Your task to perform on an android device: change the clock display to show seconds Image 0: 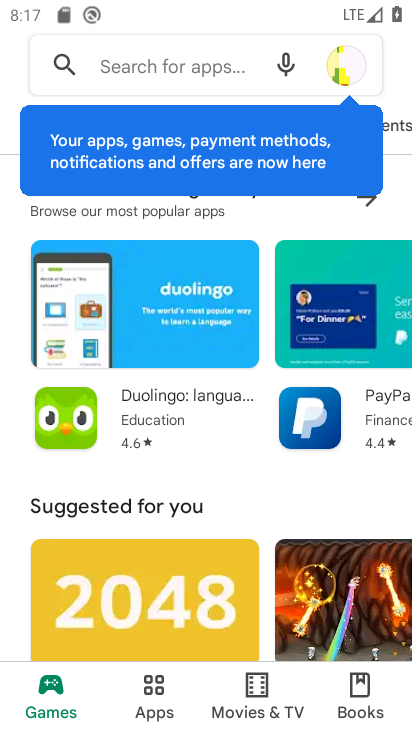
Step 0: press home button
Your task to perform on an android device: change the clock display to show seconds Image 1: 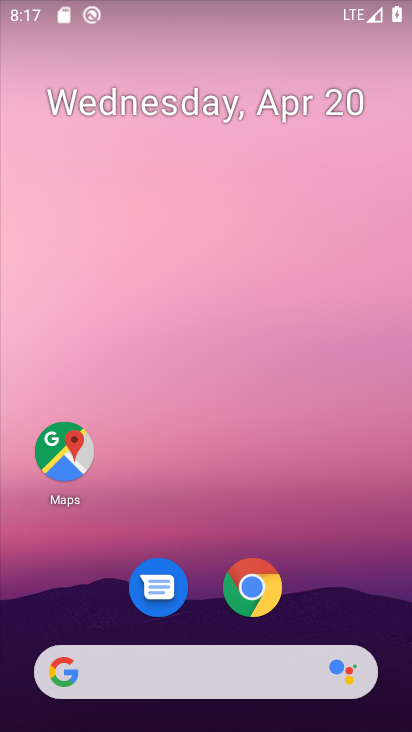
Step 1: drag from (370, 536) to (405, 237)
Your task to perform on an android device: change the clock display to show seconds Image 2: 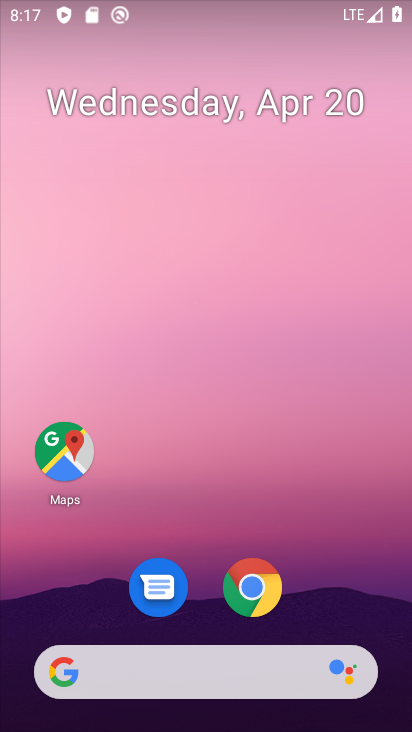
Step 2: drag from (343, 538) to (367, 174)
Your task to perform on an android device: change the clock display to show seconds Image 3: 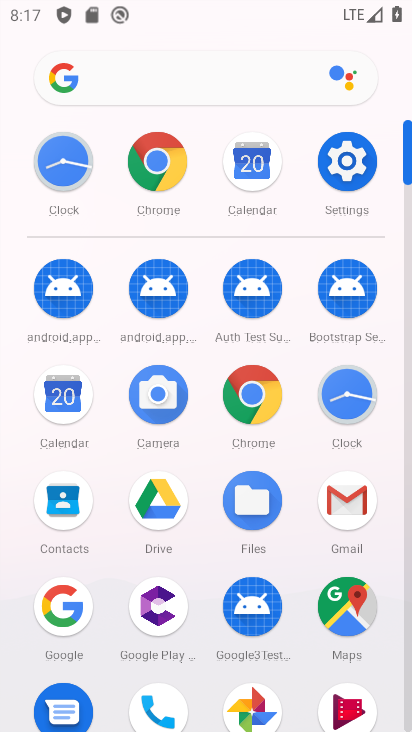
Step 3: click (354, 398)
Your task to perform on an android device: change the clock display to show seconds Image 4: 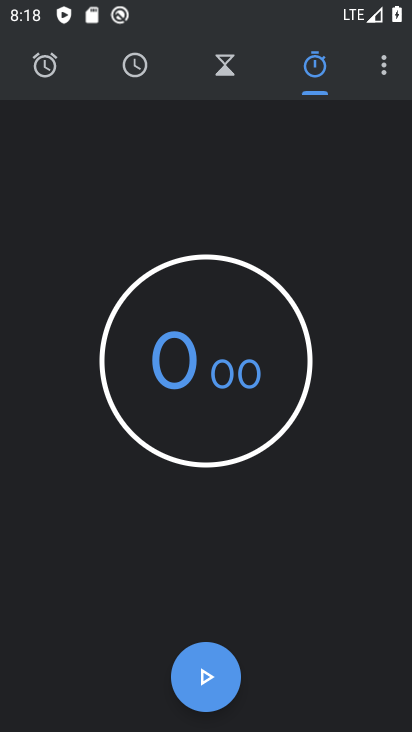
Step 4: click (386, 75)
Your task to perform on an android device: change the clock display to show seconds Image 5: 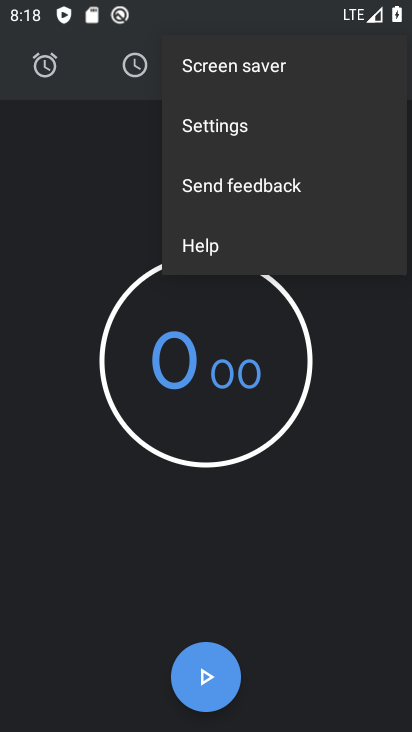
Step 5: click (267, 125)
Your task to perform on an android device: change the clock display to show seconds Image 6: 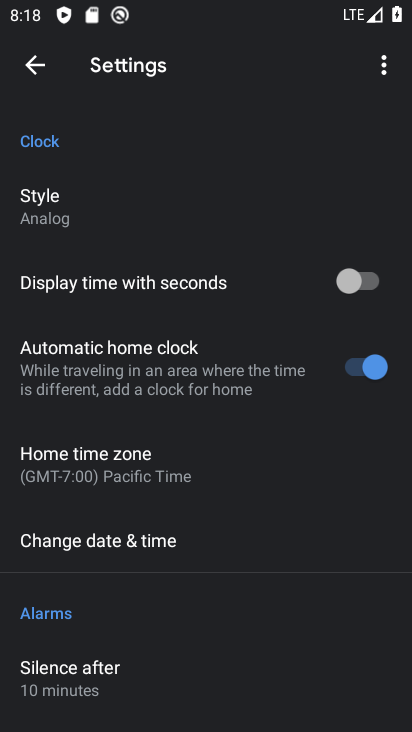
Step 6: drag from (291, 562) to (309, 405)
Your task to perform on an android device: change the clock display to show seconds Image 7: 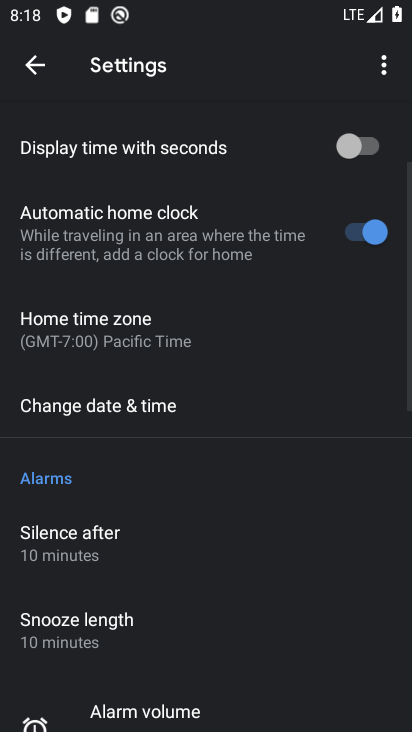
Step 7: drag from (311, 579) to (317, 411)
Your task to perform on an android device: change the clock display to show seconds Image 8: 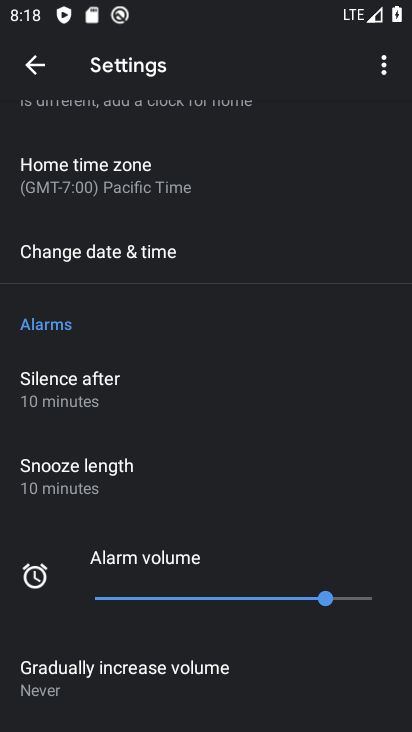
Step 8: drag from (290, 506) to (291, 374)
Your task to perform on an android device: change the clock display to show seconds Image 9: 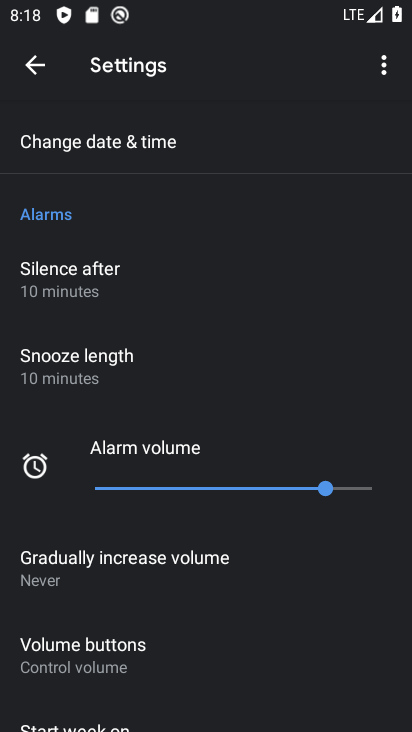
Step 9: drag from (294, 580) to (308, 401)
Your task to perform on an android device: change the clock display to show seconds Image 10: 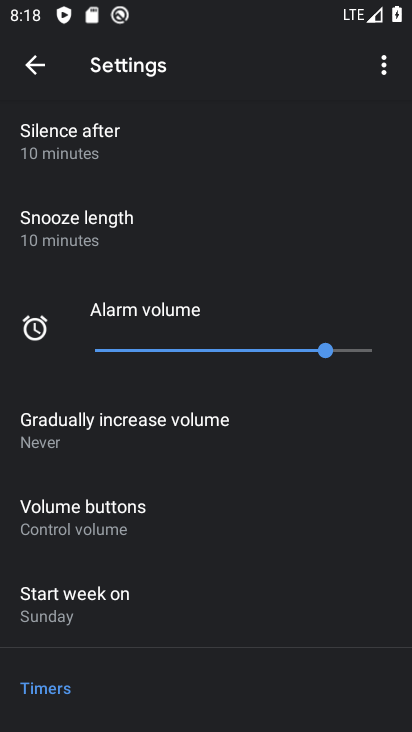
Step 10: drag from (309, 593) to (313, 420)
Your task to perform on an android device: change the clock display to show seconds Image 11: 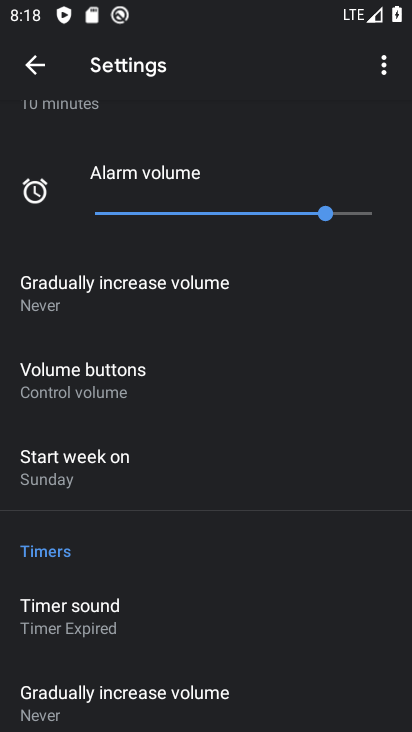
Step 11: drag from (315, 609) to (322, 457)
Your task to perform on an android device: change the clock display to show seconds Image 12: 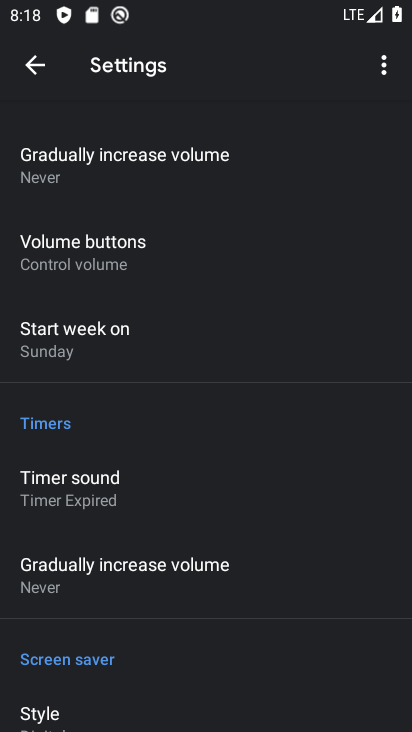
Step 12: drag from (322, 637) to (318, 478)
Your task to perform on an android device: change the clock display to show seconds Image 13: 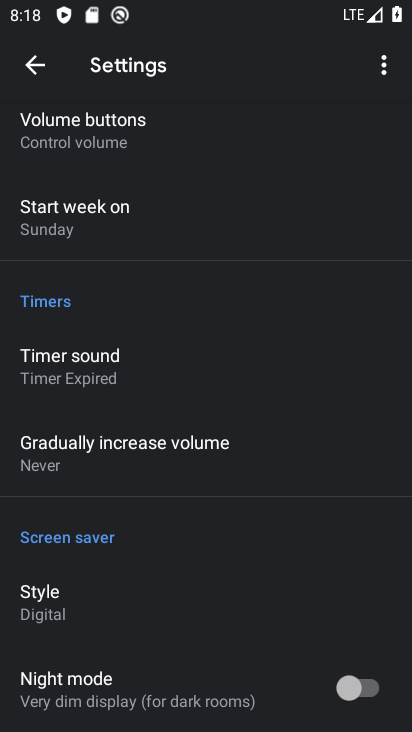
Step 13: drag from (326, 357) to (327, 519)
Your task to perform on an android device: change the clock display to show seconds Image 14: 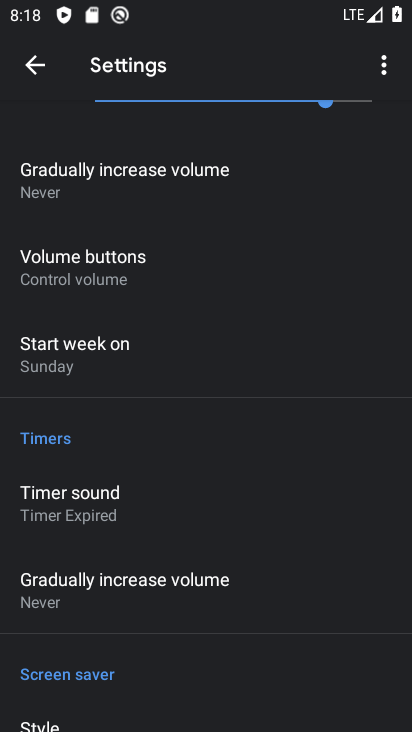
Step 14: drag from (324, 317) to (317, 468)
Your task to perform on an android device: change the clock display to show seconds Image 15: 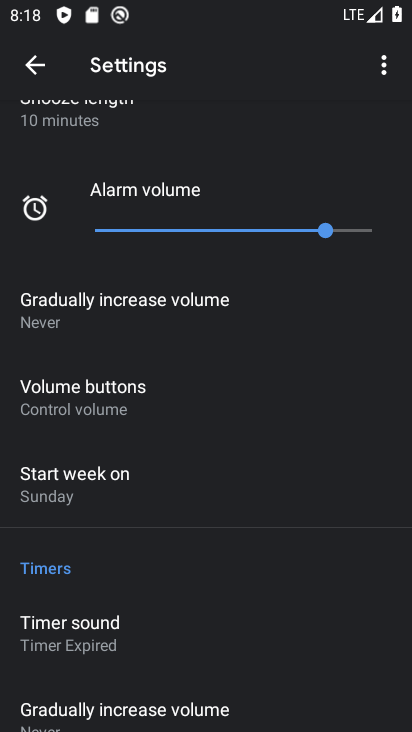
Step 15: drag from (322, 310) to (305, 476)
Your task to perform on an android device: change the clock display to show seconds Image 16: 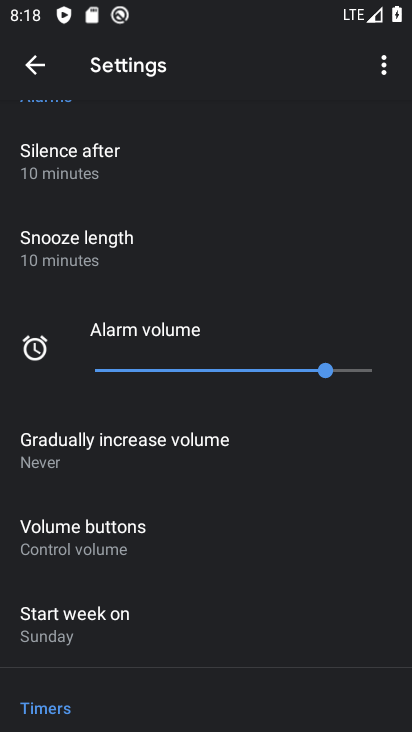
Step 16: drag from (297, 259) to (289, 460)
Your task to perform on an android device: change the clock display to show seconds Image 17: 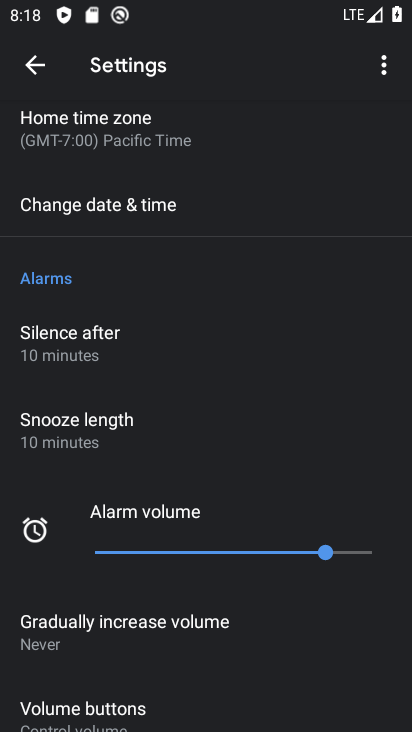
Step 17: drag from (291, 288) to (279, 432)
Your task to perform on an android device: change the clock display to show seconds Image 18: 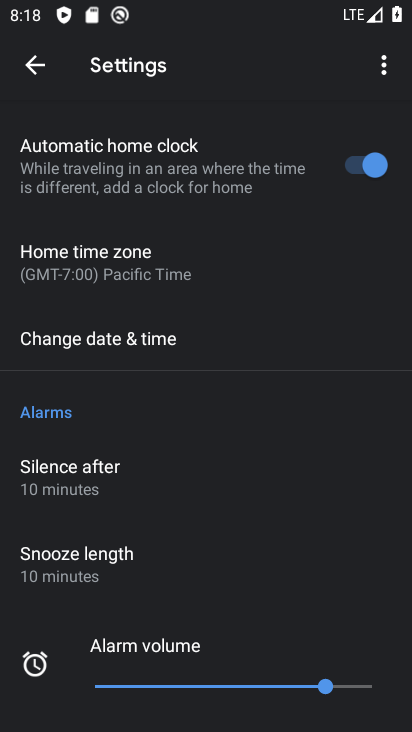
Step 18: drag from (282, 236) to (272, 407)
Your task to perform on an android device: change the clock display to show seconds Image 19: 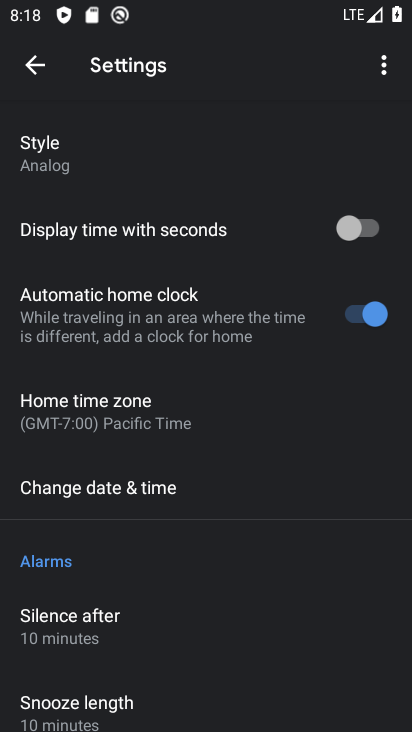
Step 19: drag from (287, 208) to (265, 426)
Your task to perform on an android device: change the clock display to show seconds Image 20: 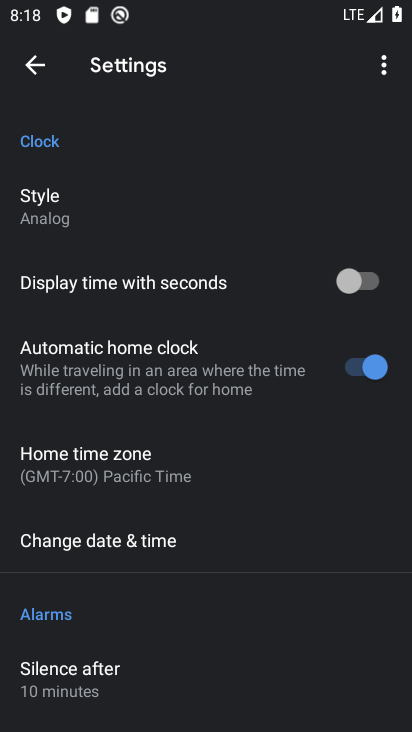
Step 20: click (347, 276)
Your task to perform on an android device: change the clock display to show seconds Image 21: 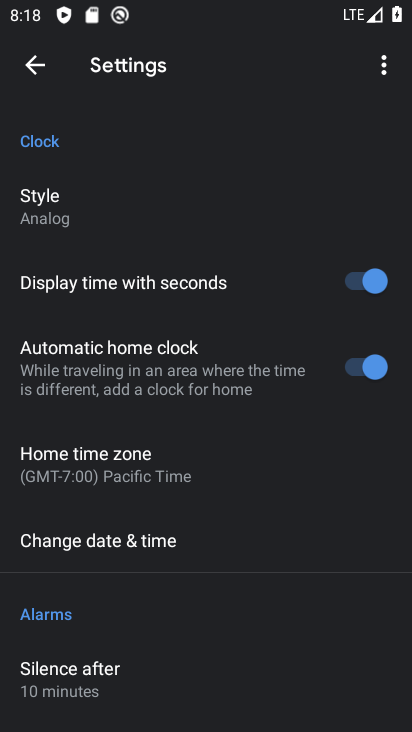
Step 21: task complete